Your task to perform on an android device: Do I have any events this weekend? Image 0: 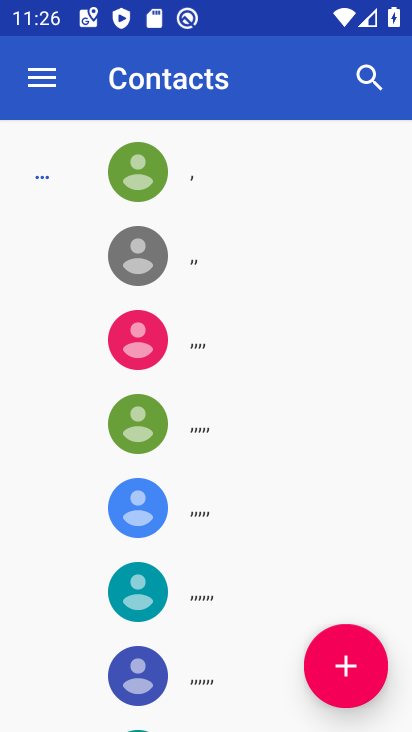
Step 0: press home button
Your task to perform on an android device: Do I have any events this weekend? Image 1: 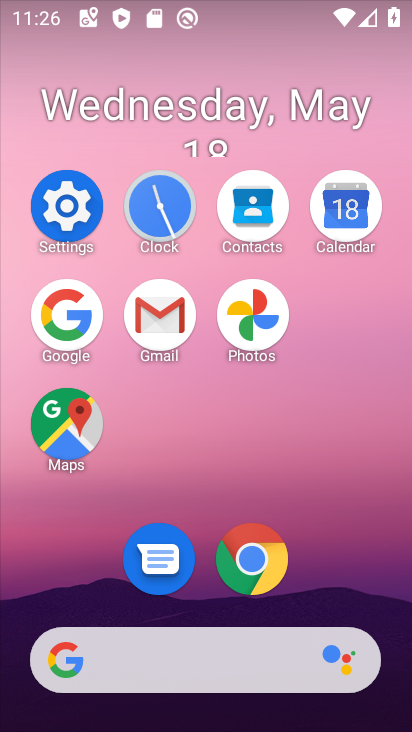
Step 1: click (347, 218)
Your task to perform on an android device: Do I have any events this weekend? Image 2: 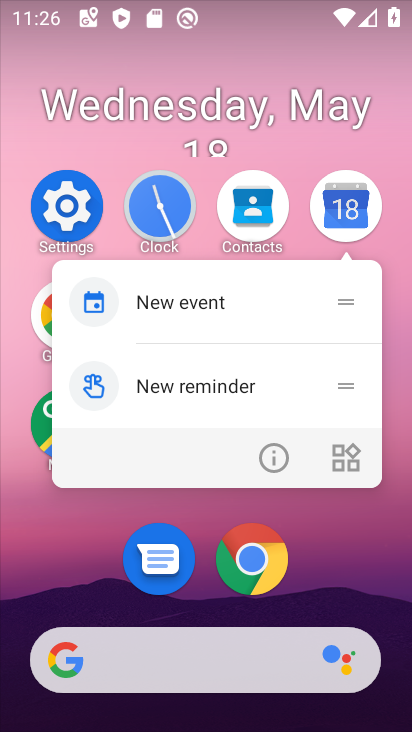
Step 2: click (363, 203)
Your task to perform on an android device: Do I have any events this weekend? Image 3: 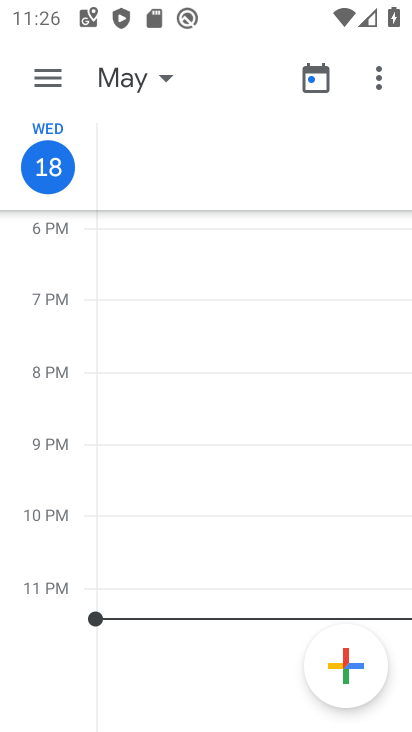
Step 3: click (60, 78)
Your task to perform on an android device: Do I have any events this weekend? Image 4: 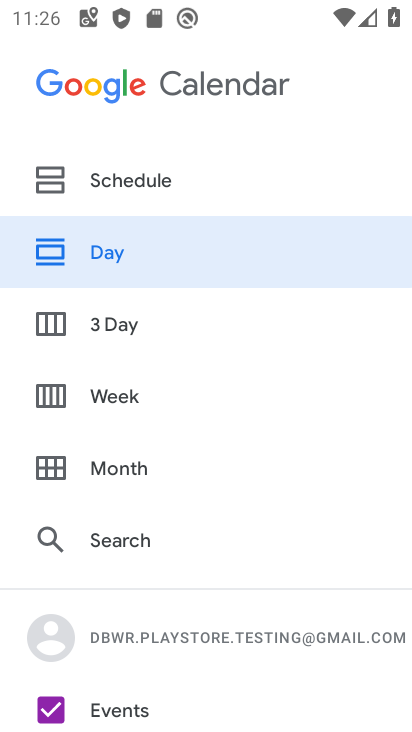
Step 4: click (126, 410)
Your task to perform on an android device: Do I have any events this weekend? Image 5: 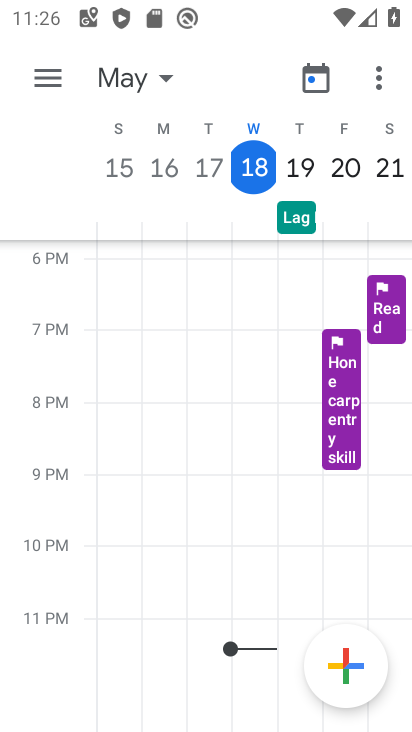
Step 5: click (396, 159)
Your task to perform on an android device: Do I have any events this weekend? Image 6: 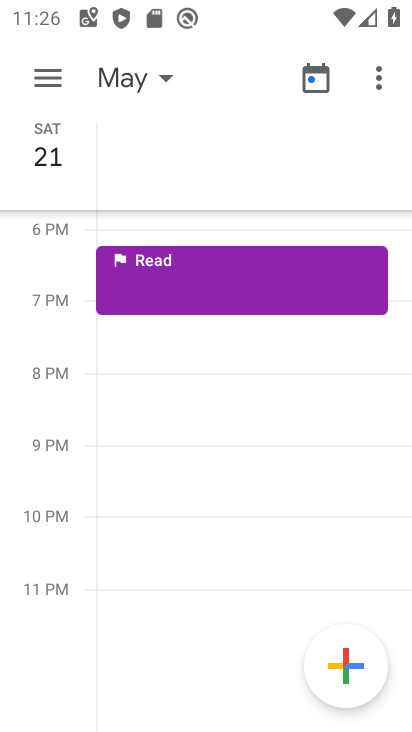
Step 6: task complete